Your task to perform on an android device: Open internet settings Image 0: 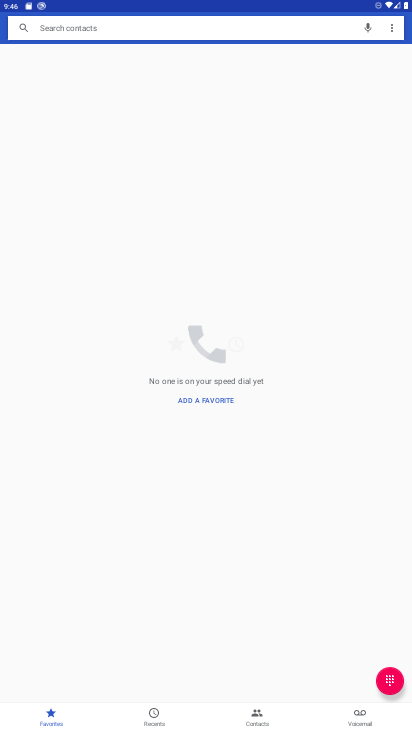
Step 0: press home button
Your task to perform on an android device: Open internet settings Image 1: 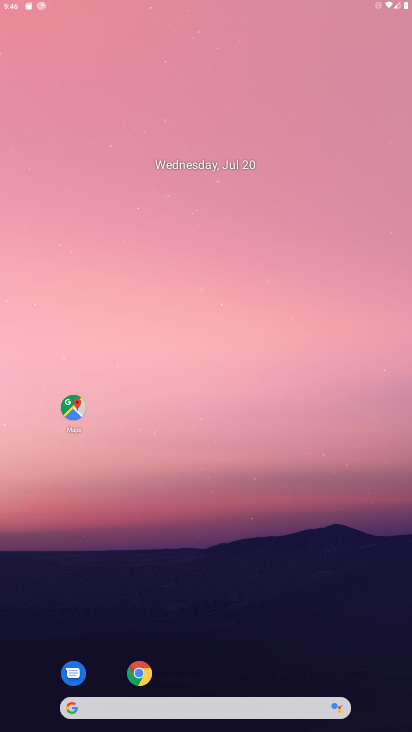
Step 1: drag from (236, 631) to (387, 112)
Your task to perform on an android device: Open internet settings Image 2: 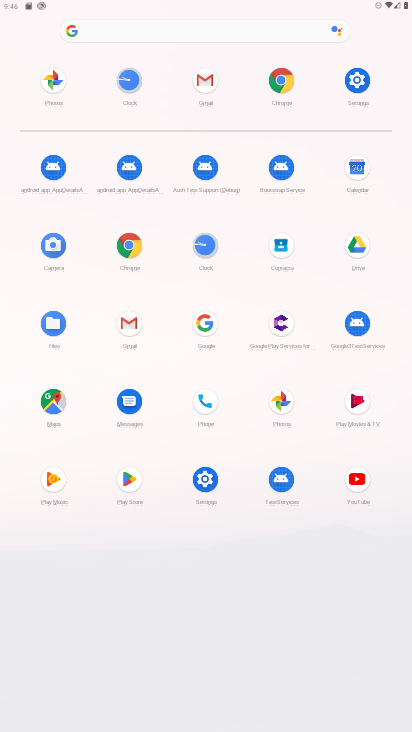
Step 2: click (205, 471)
Your task to perform on an android device: Open internet settings Image 3: 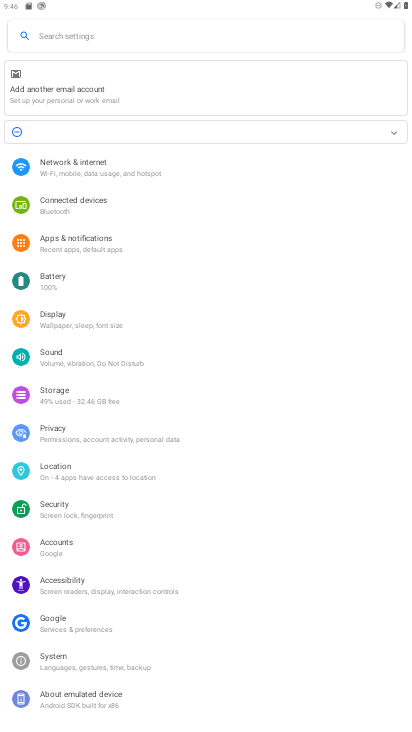
Step 3: click (105, 166)
Your task to perform on an android device: Open internet settings Image 4: 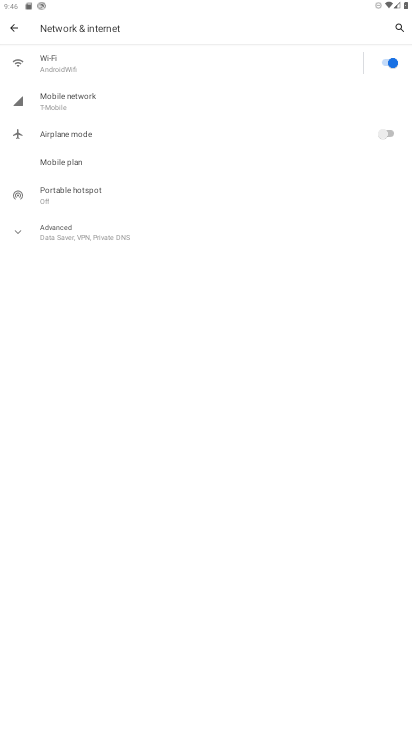
Step 4: task complete